Your task to perform on an android device: Open the map Image 0: 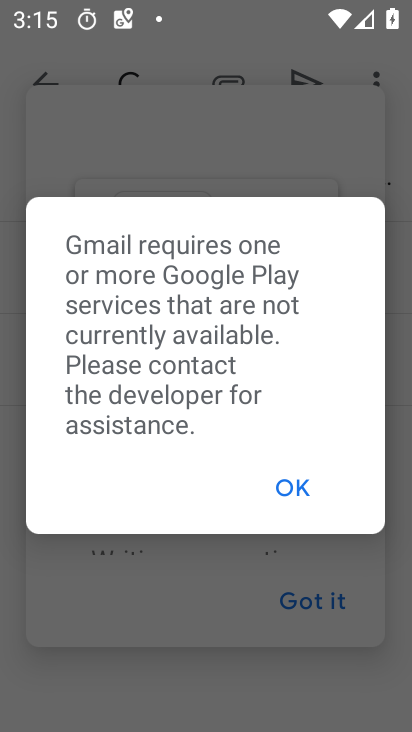
Step 0: press home button
Your task to perform on an android device: Open the map Image 1: 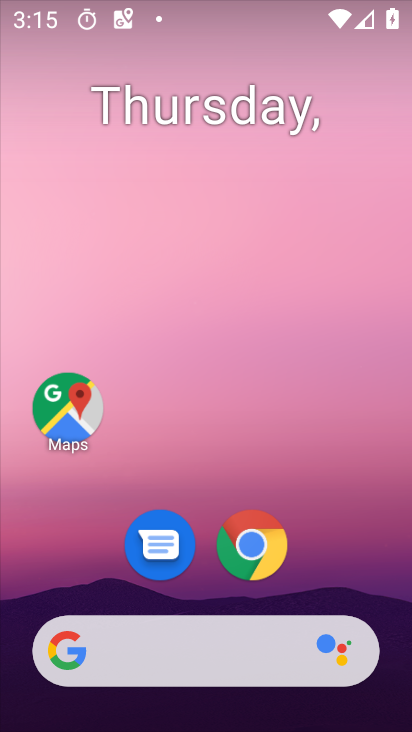
Step 1: drag from (223, 717) to (222, 137)
Your task to perform on an android device: Open the map Image 2: 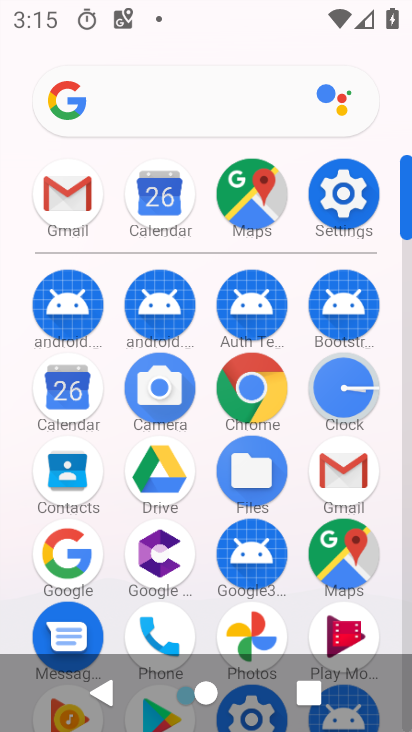
Step 2: click (344, 545)
Your task to perform on an android device: Open the map Image 3: 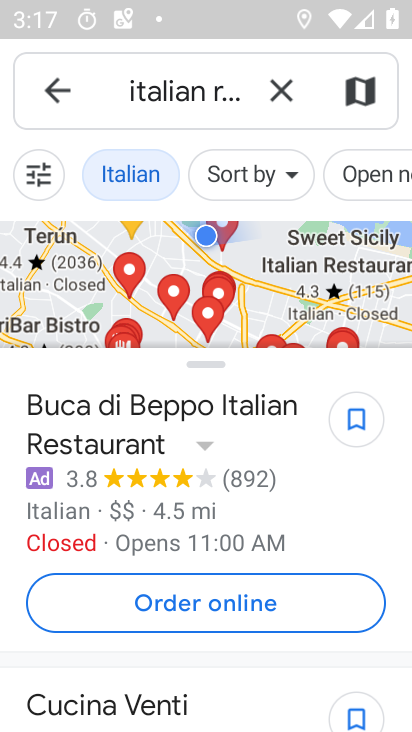
Step 3: task complete